Your task to perform on an android device: Open network settings Image 0: 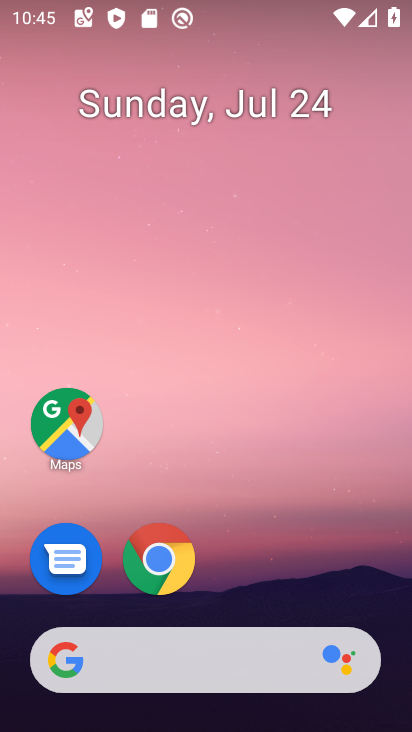
Step 0: drag from (244, 615) to (212, 12)
Your task to perform on an android device: Open network settings Image 1: 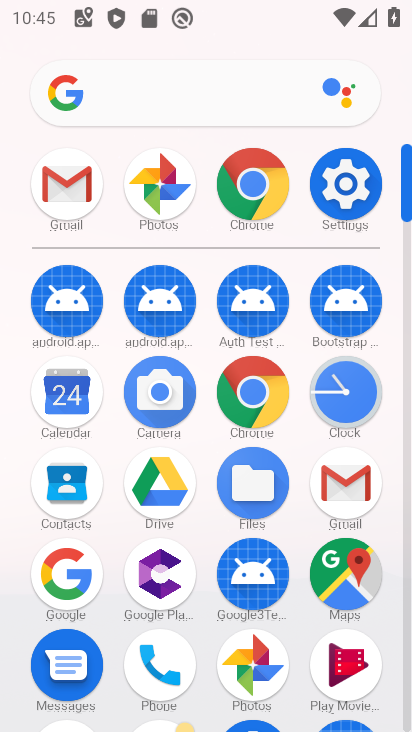
Step 1: click (356, 186)
Your task to perform on an android device: Open network settings Image 2: 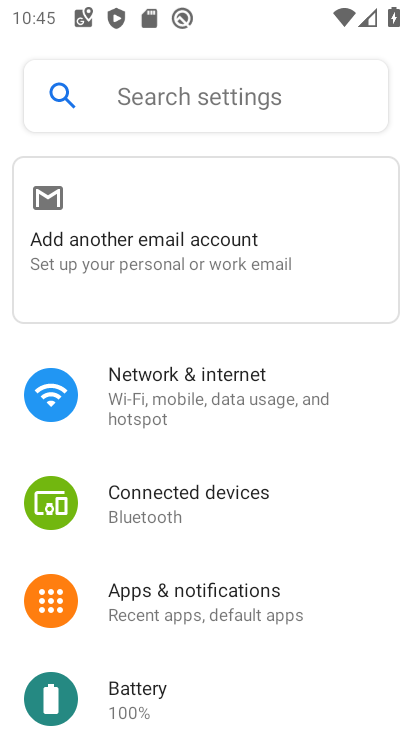
Step 2: click (149, 396)
Your task to perform on an android device: Open network settings Image 3: 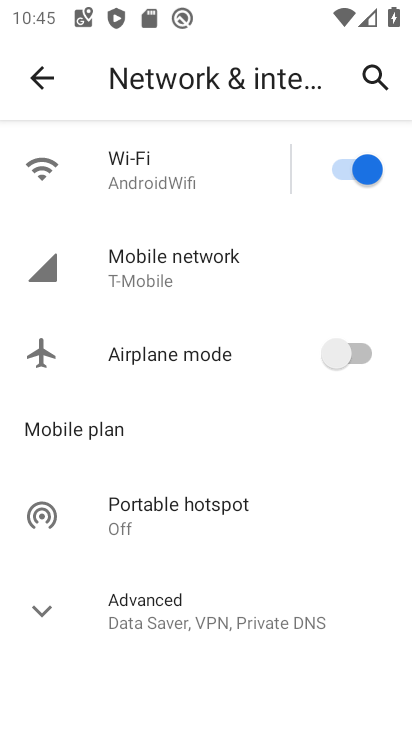
Step 3: task complete